Your task to perform on an android device: open a bookmark in the chrome app Image 0: 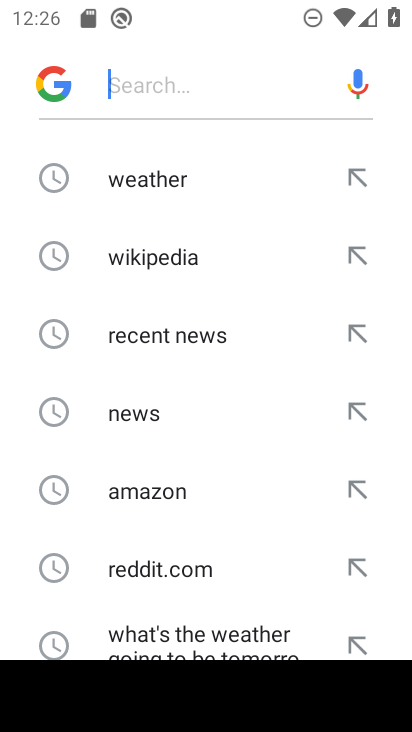
Step 0: press home button
Your task to perform on an android device: open a bookmark in the chrome app Image 1: 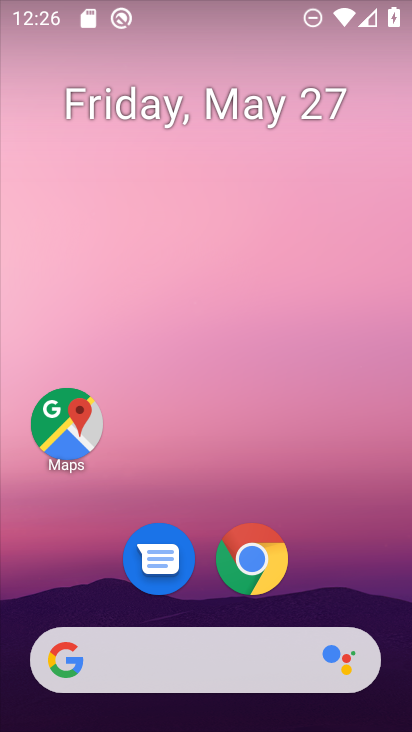
Step 1: click (256, 584)
Your task to perform on an android device: open a bookmark in the chrome app Image 2: 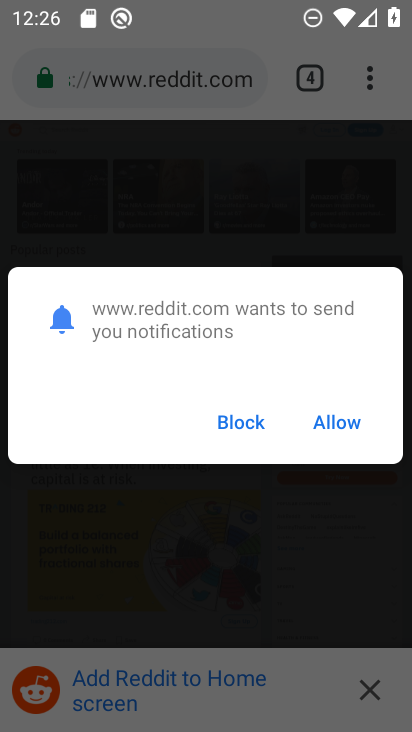
Step 2: click (338, 214)
Your task to perform on an android device: open a bookmark in the chrome app Image 3: 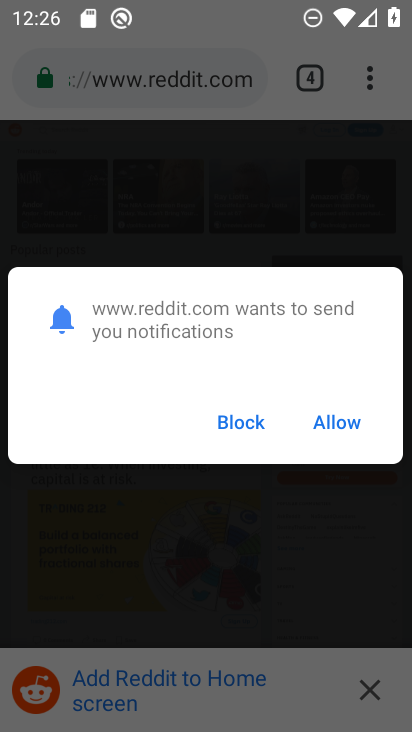
Step 3: click (363, 73)
Your task to perform on an android device: open a bookmark in the chrome app Image 4: 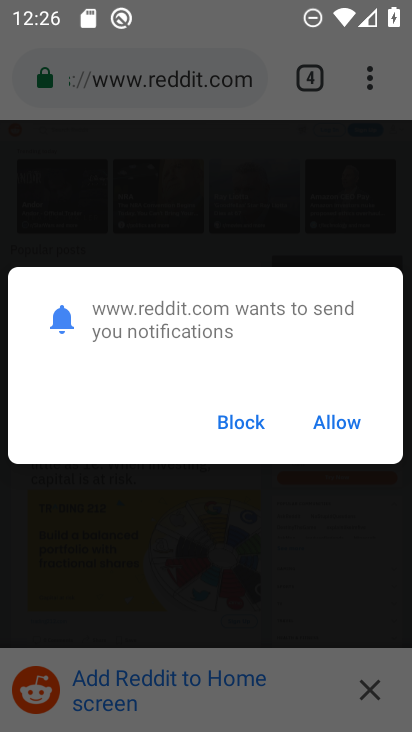
Step 4: click (233, 422)
Your task to perform on an android device: open a bookmark in the chrome app Image 5: 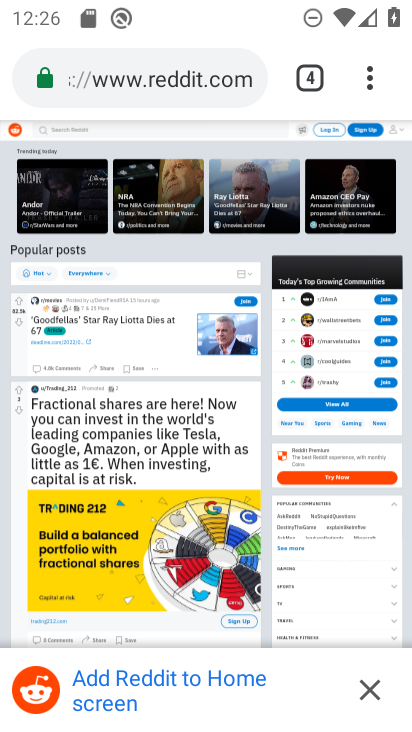
Step 5: click (371, 69)
Your task to perform on an android device: open a bookmark in the chrome app Image 6: 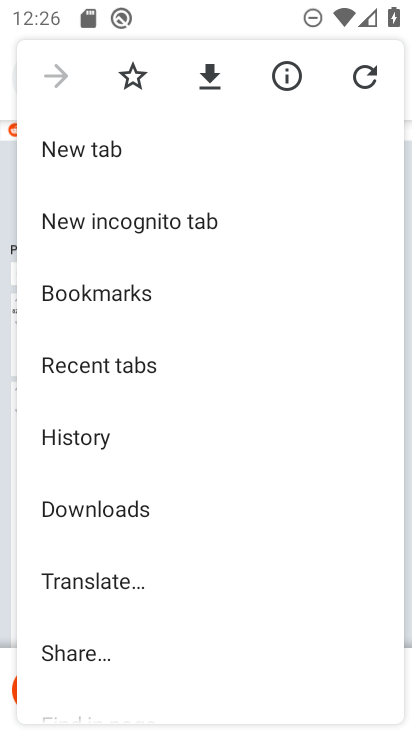
Step 6: click (133, 281)
Your task to perform on an android device: open a bookmark in the chrome app Image 7: 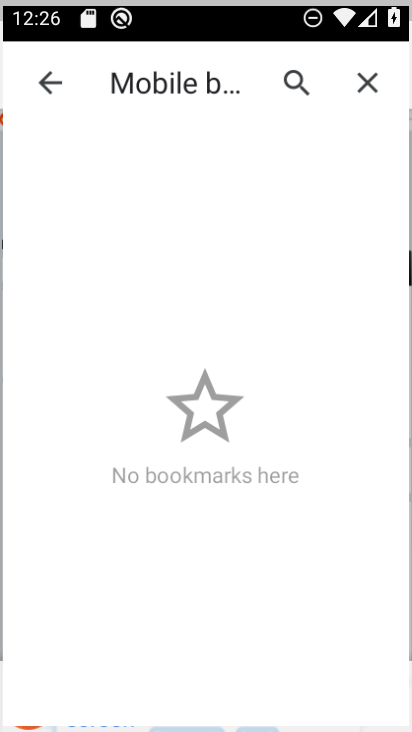
Step 7: click (133, 281)
Your task to perform on an android device: open a bookmark in the chrome app Image 8: 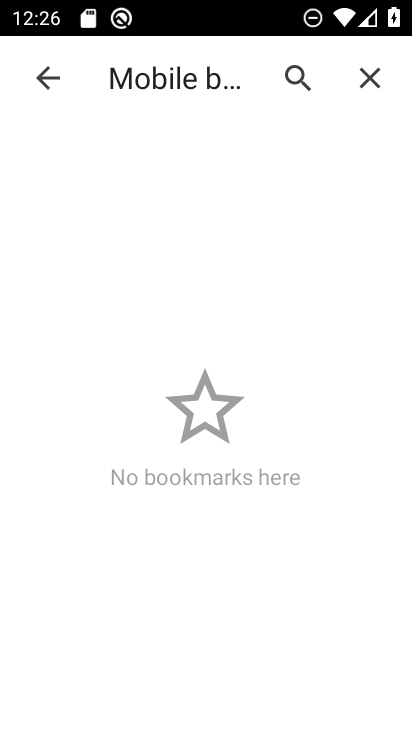
Step 8: task complete